Your task to perform on an android device: see sites visited before in the chrome app Image 0: 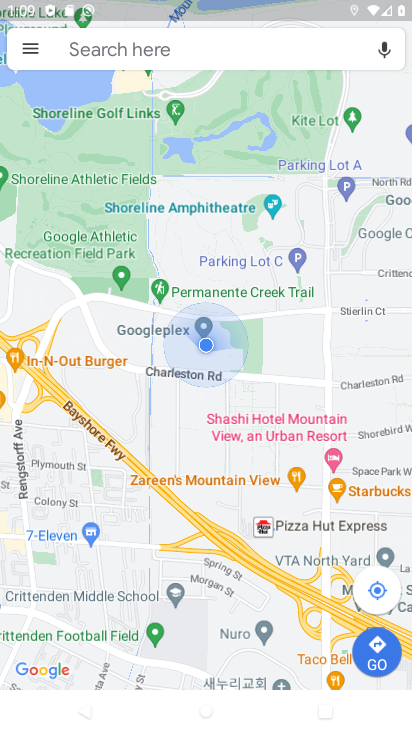
Step 0: press home button
Your task to perform on an android device: see sites visited before in the chrome app Image 1: 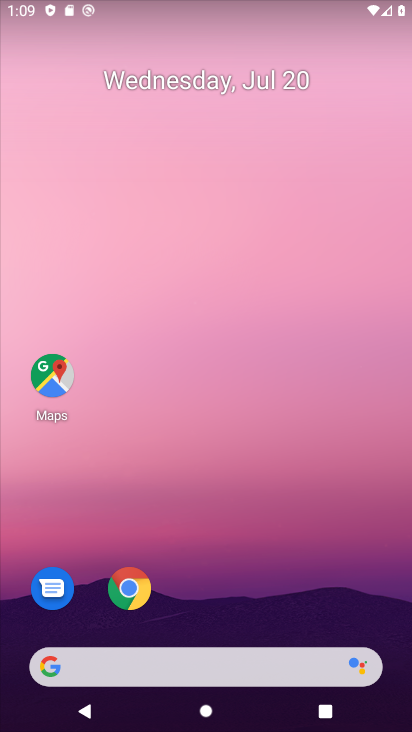
Step 1: drag from (391, 650) to (157, 50)
Your task to perform on an android device: see sites visited before in the chrome app Image 2: 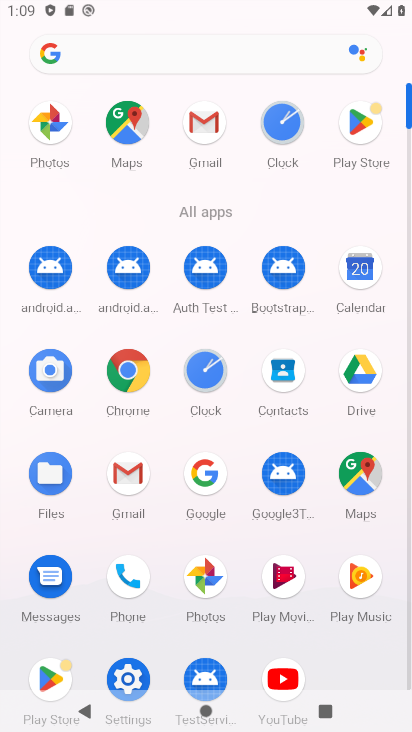
Step 2: click (131, 375)
Your task to perform on an android device: see sites visited before in the chrome app Image 3: 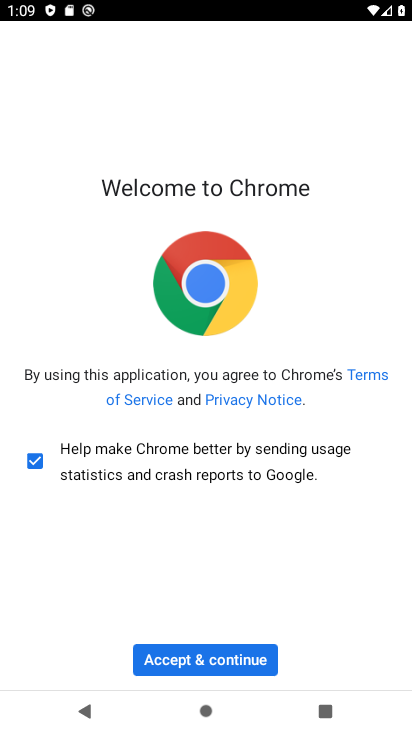
Step 3: click (193, 656)
Your task to perform on an android device: see sites visited before in the chrome app Image 4: 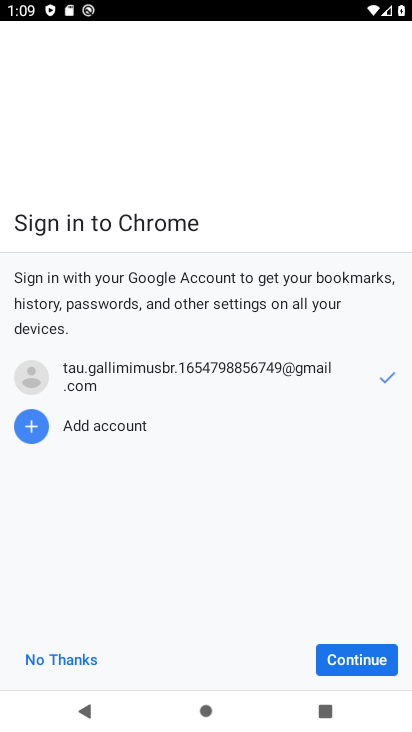
Step 4: click (329, 664)
Your task to perform on an android device: see sites visited before in the chrome app Image 5: 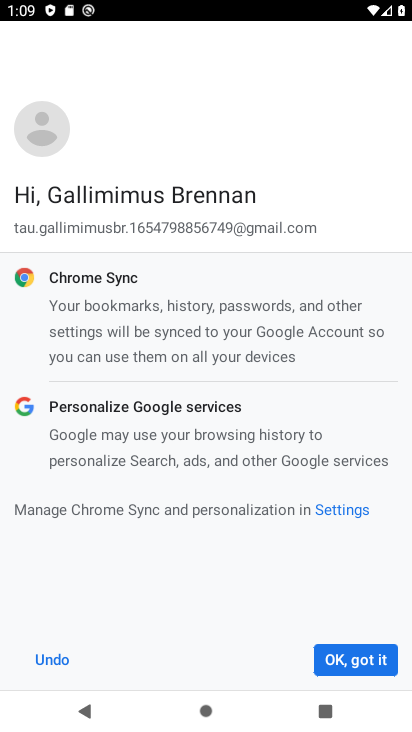
Step 5: click (330, 664)
Your task to perform on an android device: see sites visited before in the chrome app Image 6: 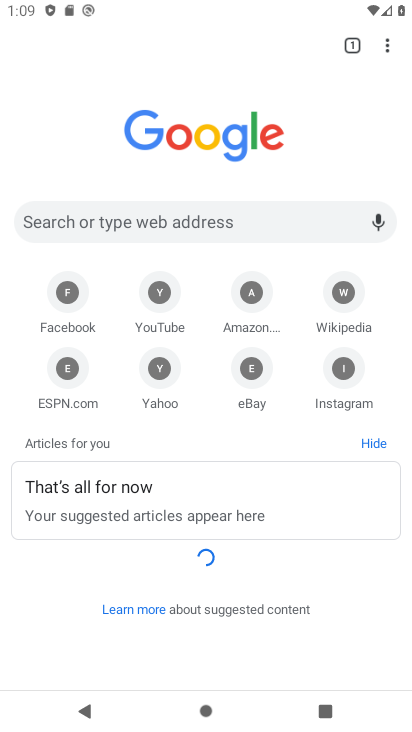
Step 6: task complete